Your task to perform on an android device: open app "Facebook" Image 0: 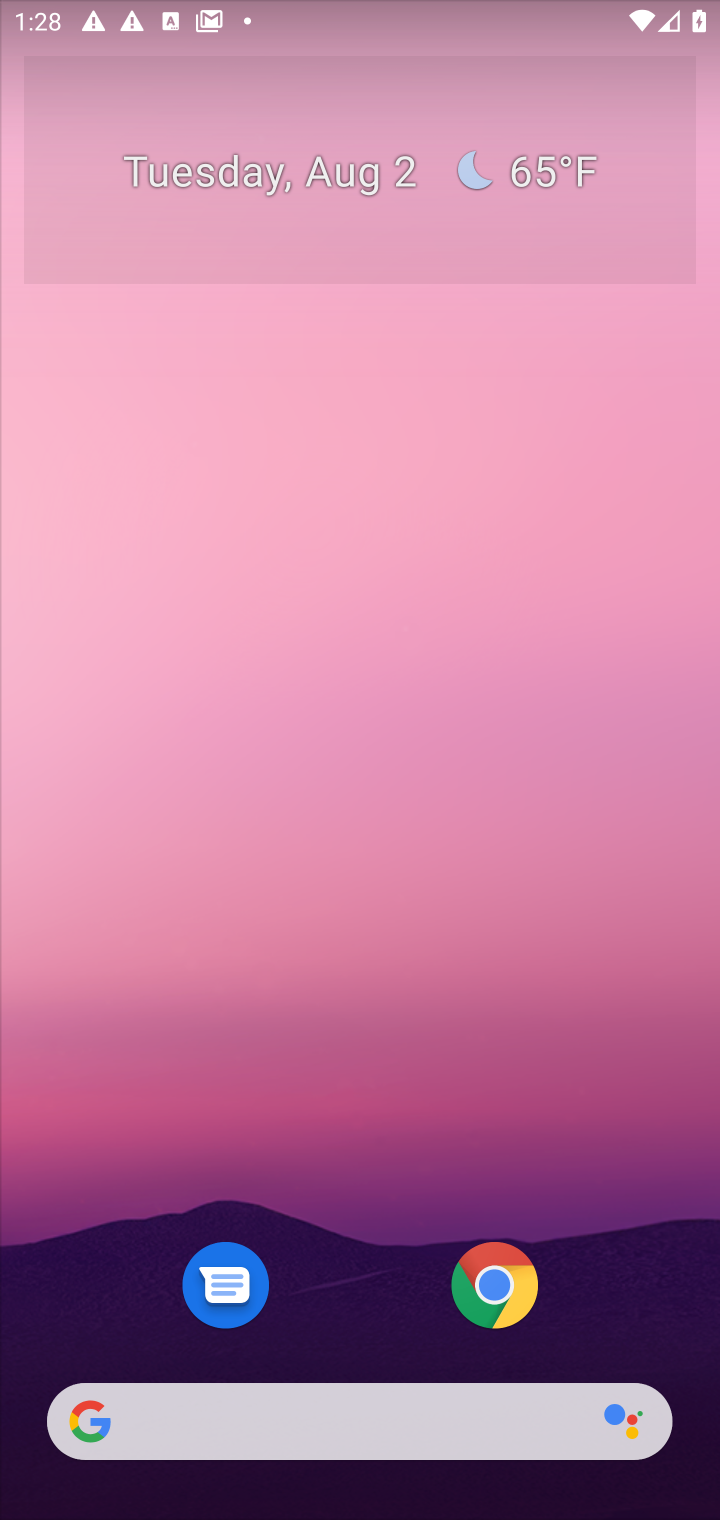
Step 0: drag from (621, 1244) to (553, 164)
Your task to perform on an android device: open app "Facebook" Image 1: 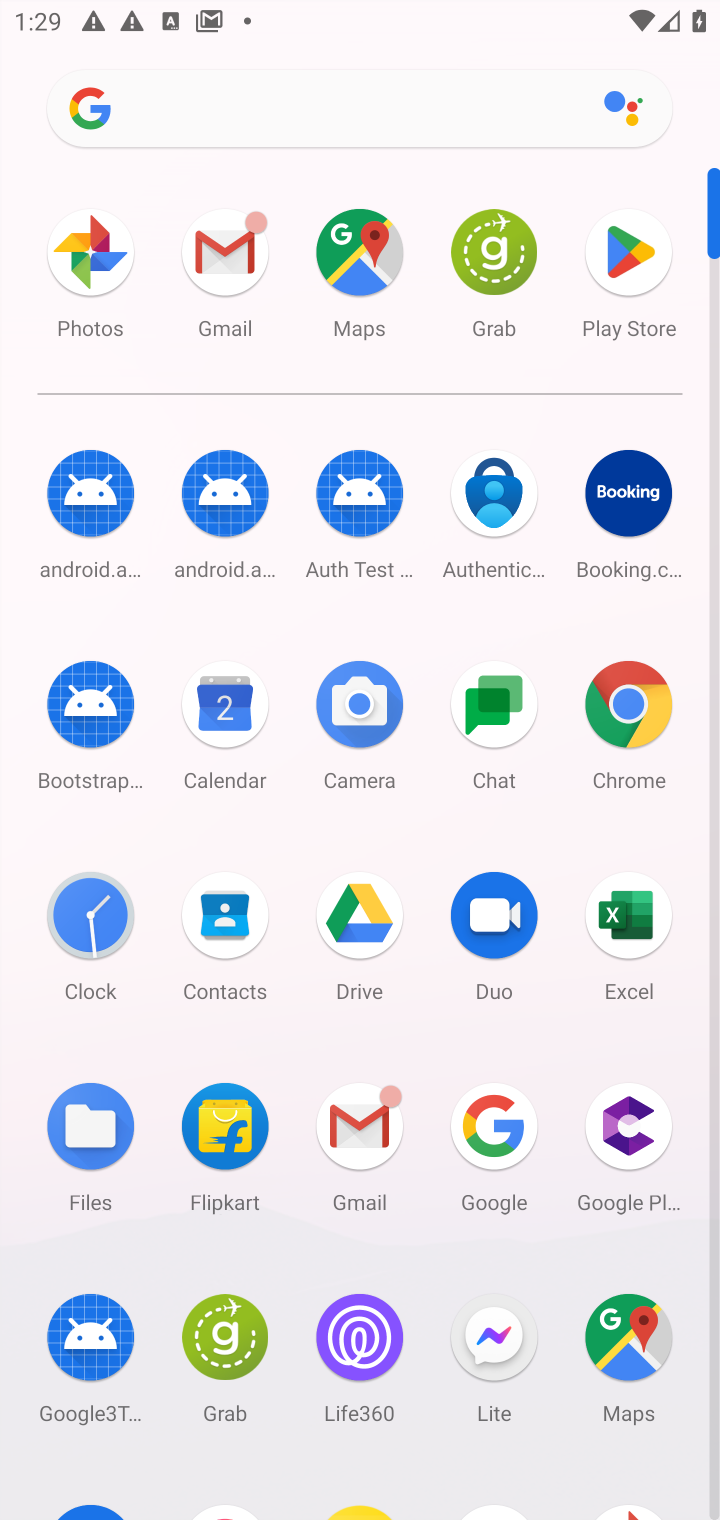
Step 1: drag from (422, 1268) to (446, 598)
Your task to perform on an android device: open app "Facebook" Image 2: 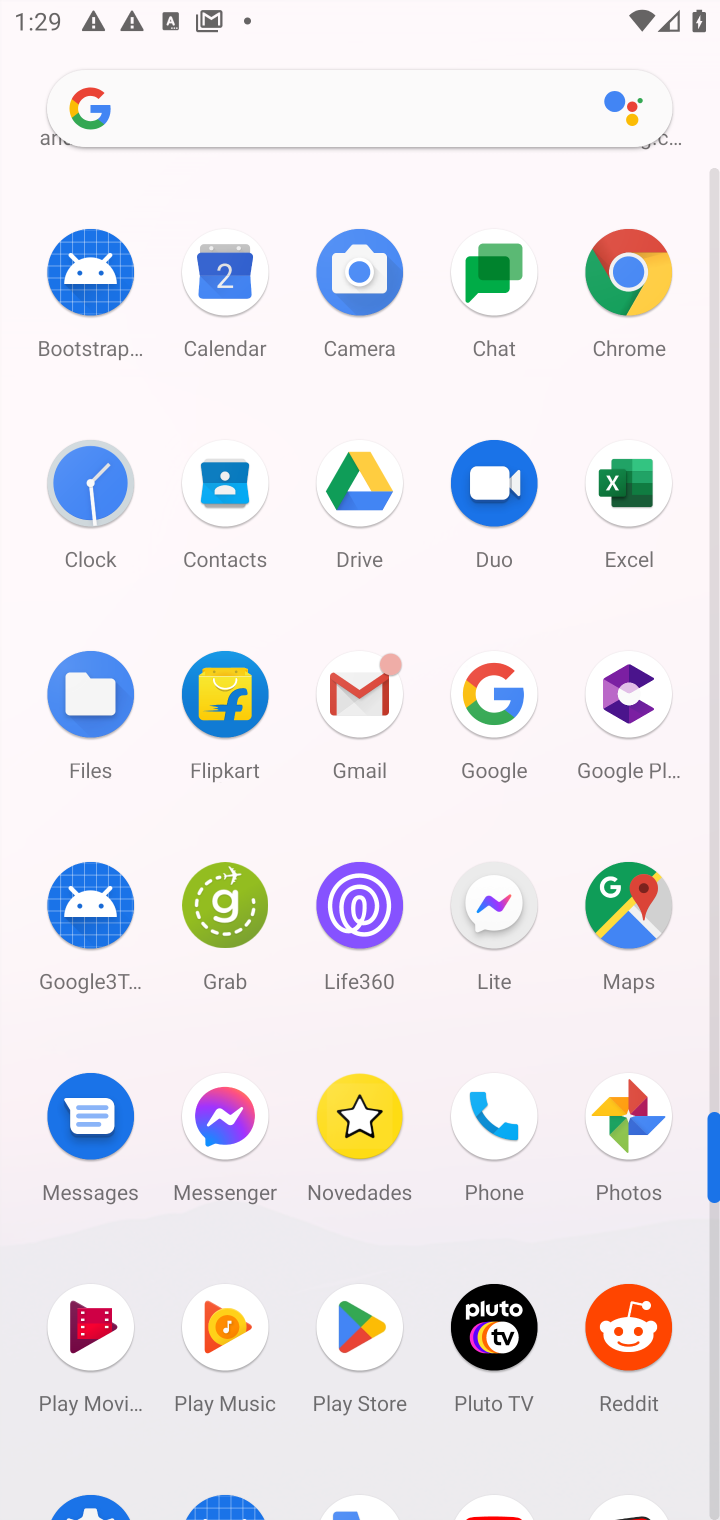
Step 2: click (365, 1324)
Your task to perform on an android device: open app "Facebook" Image 3: 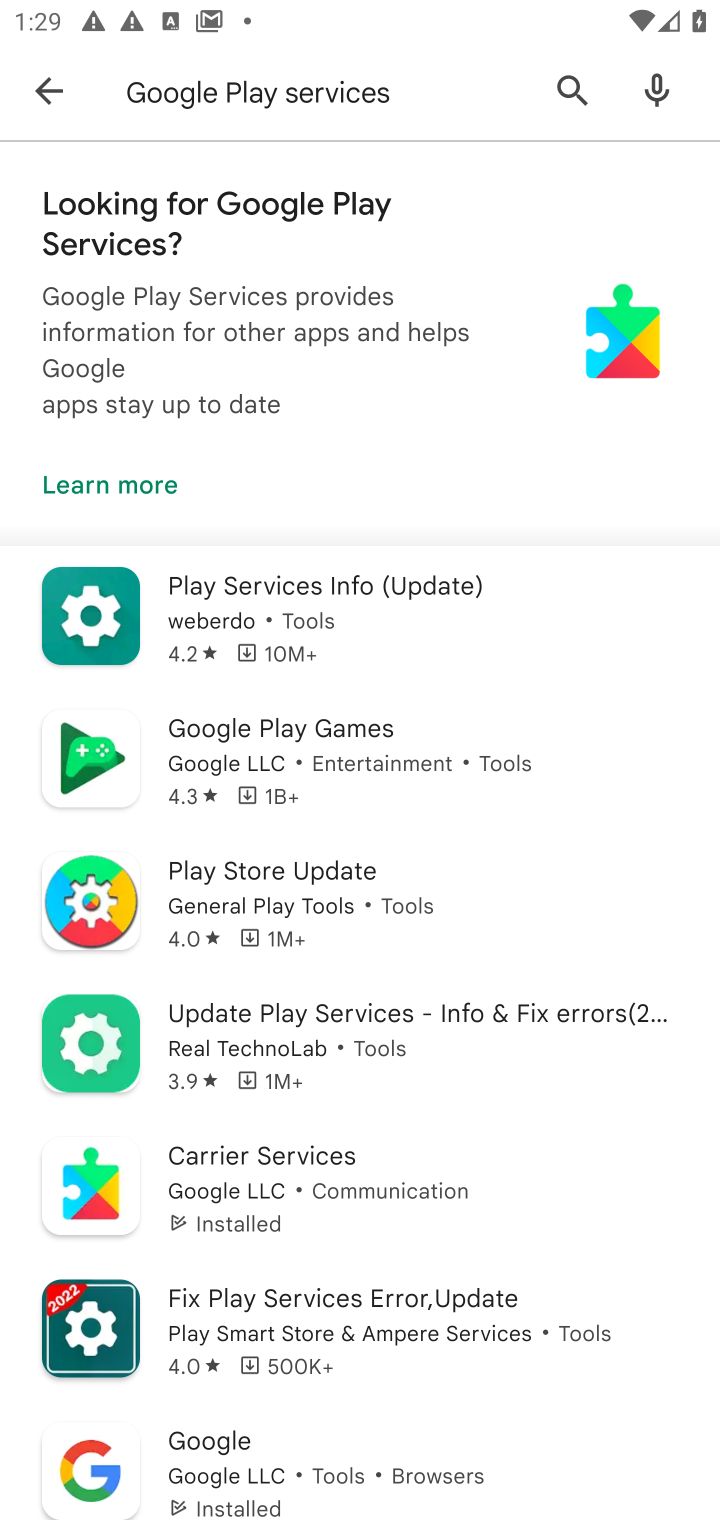
Step 3: click (496, 90)
Your task to perform on an android device: open app "Facebook" Image 4: 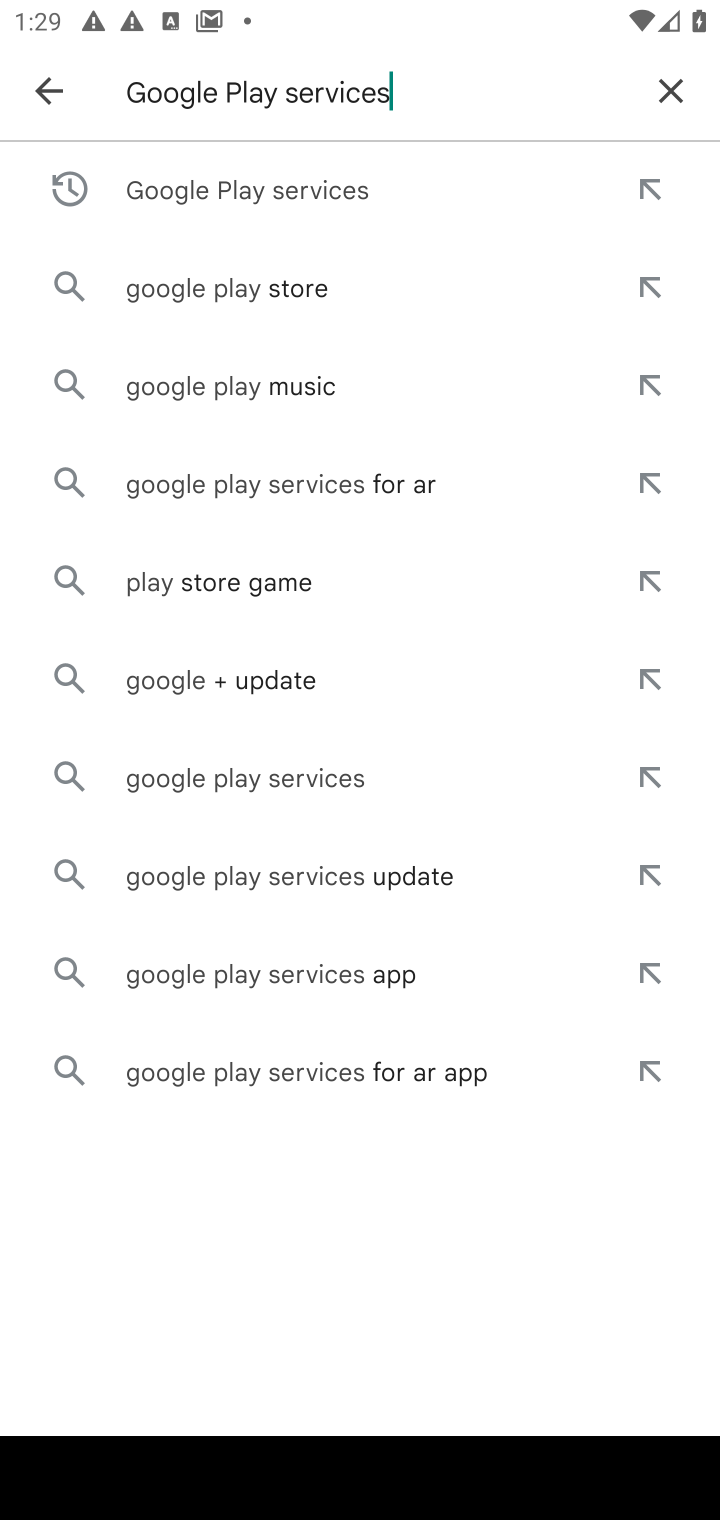
Step 4: click (660, 83)
Your task to perform on an android device: open app "Facebook" Image 5: 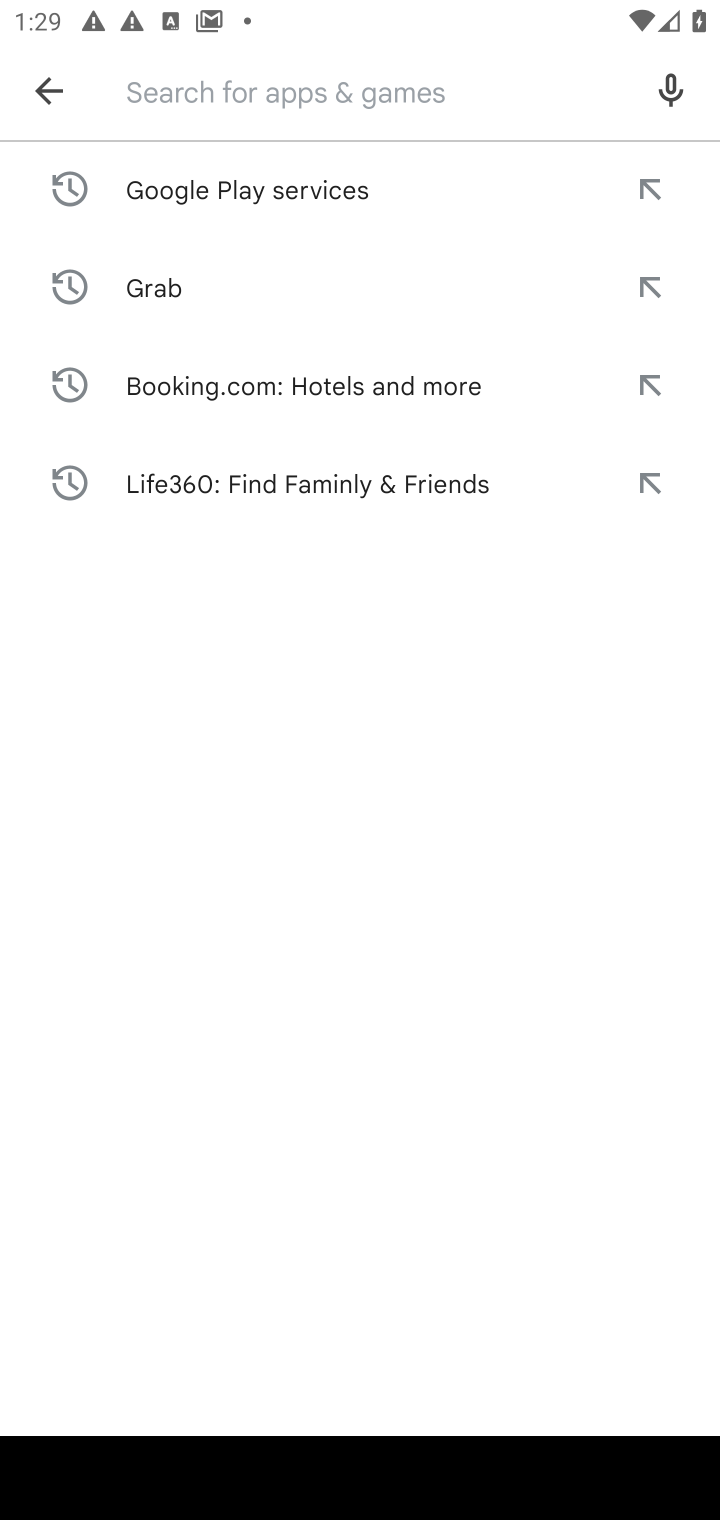
Step 5: type "Facebook"
Your task to perform on an android device: open app "Facebook" Image 6: 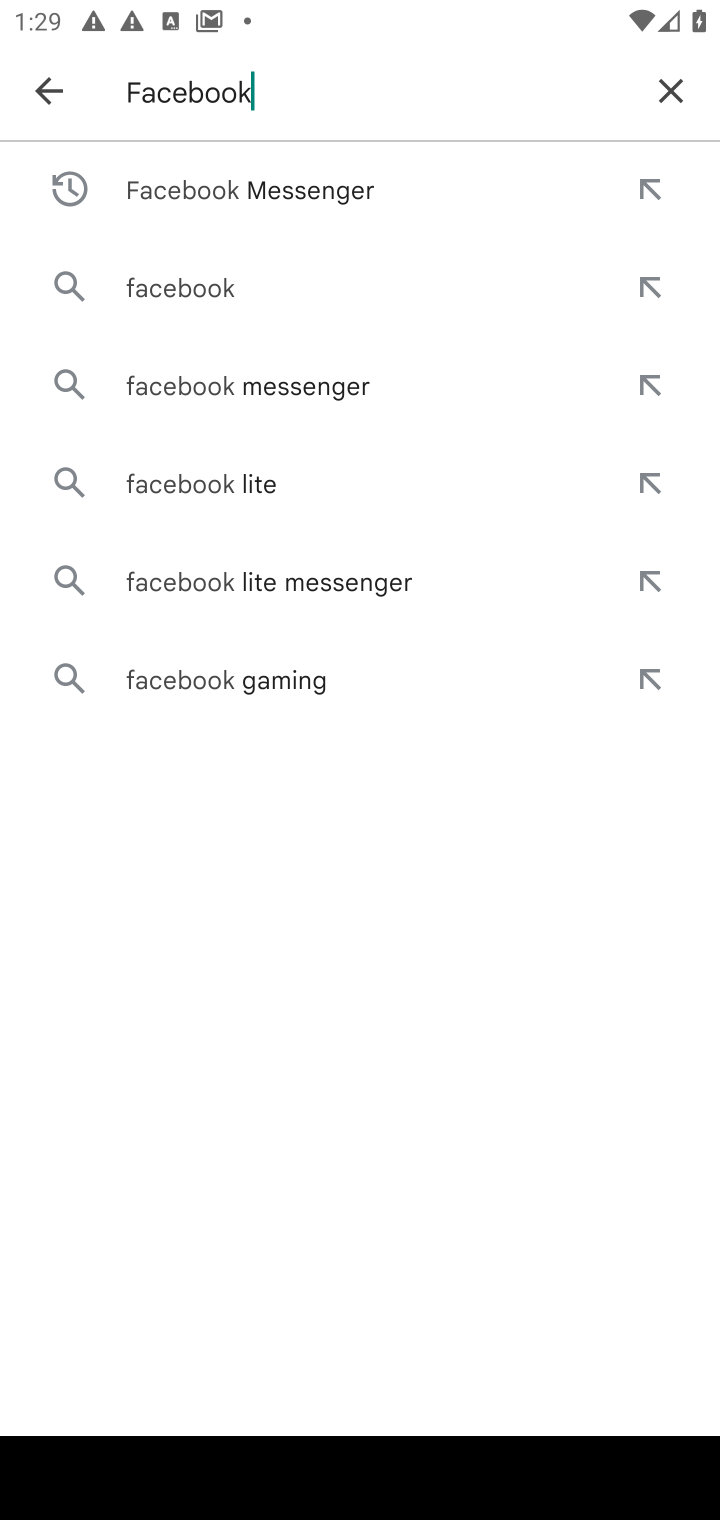
Step 6: press enter
Your task to perform on an android device: open app "Facebook" Image 7: 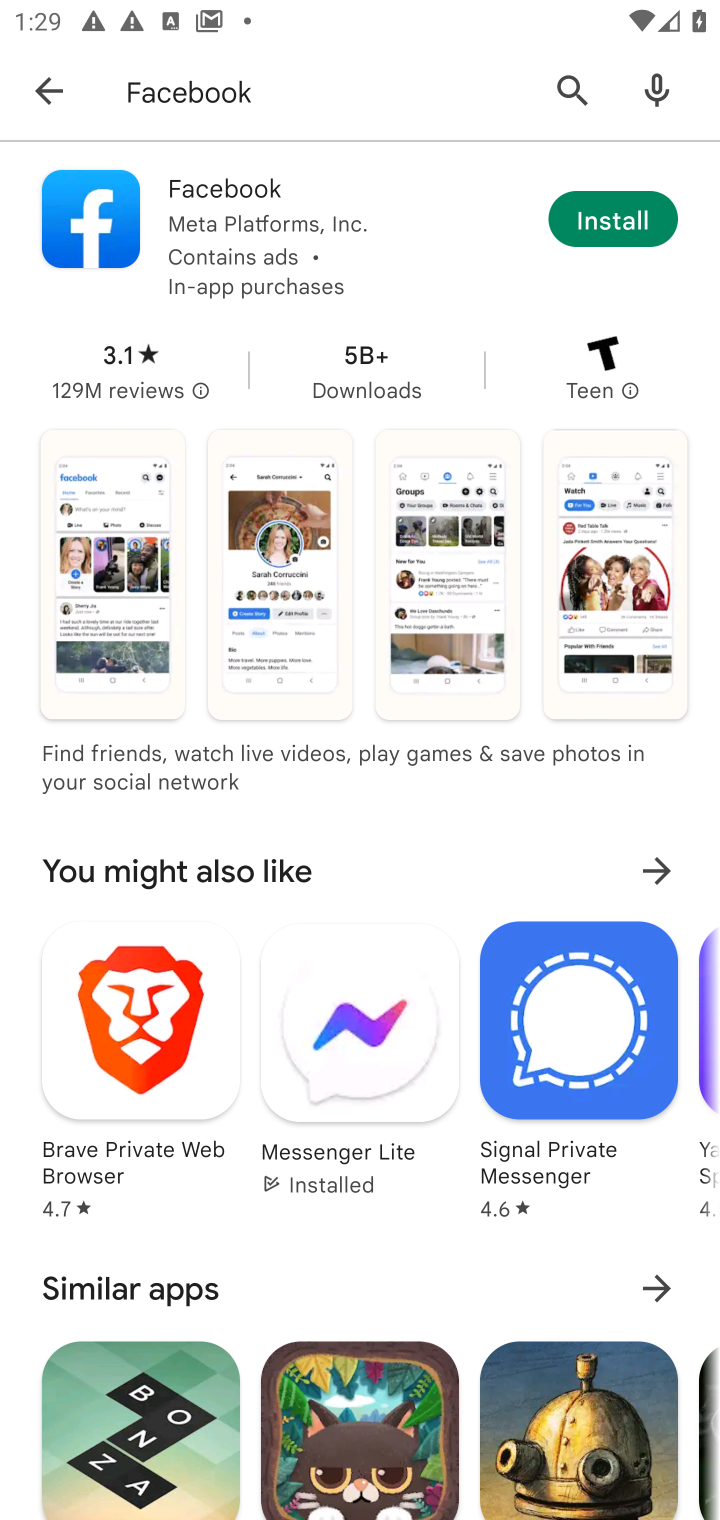
Step 7: task complete